Your task to perform on an android device: snooze an email in the gmail app Image 0: 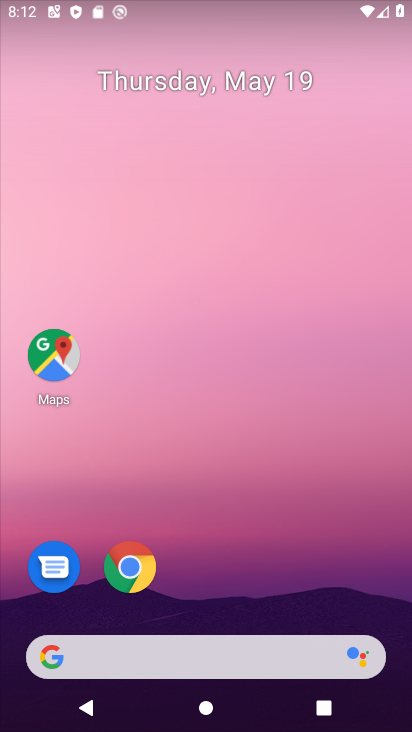
Step 0: drag from (235, 605) to (176, 272)
Your task to perform on an android device: snooze an email in the gmail app Image 1: 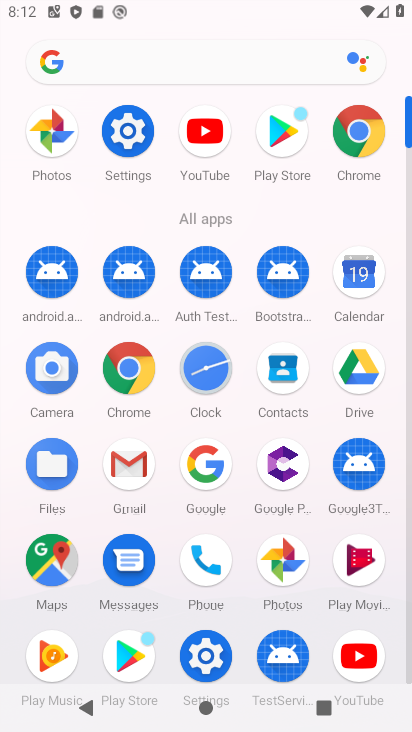
Step 1: click (113, 484)
Your task to perform on an android device: snooze an email in the gmail app Image 2: 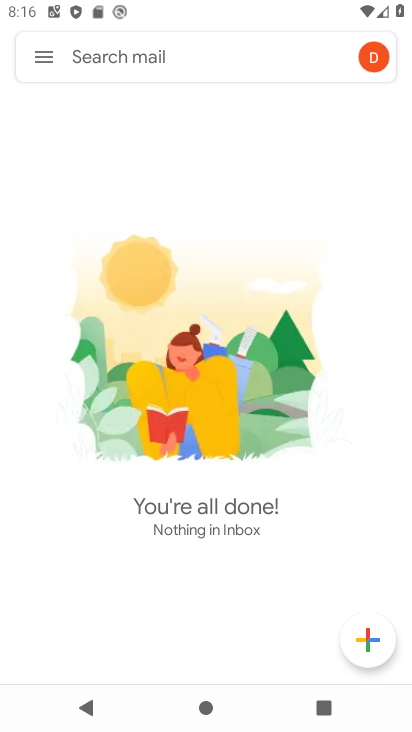
Step 2: task complete